Your task to perform on an android device: turn off improve location accuracy Image 0: 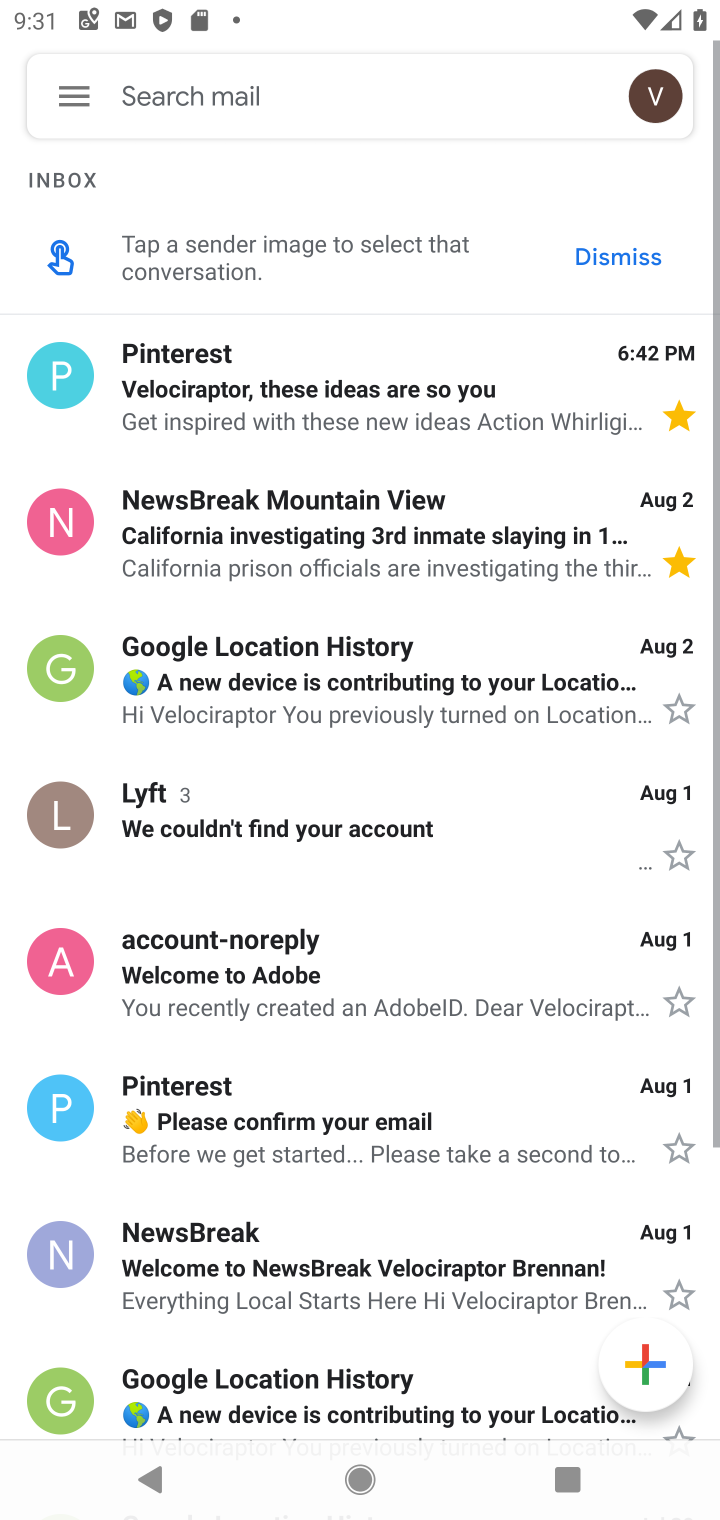
Step 0: press back button
Your task to perform on an android device: turn off improve location accuracy Image 1: 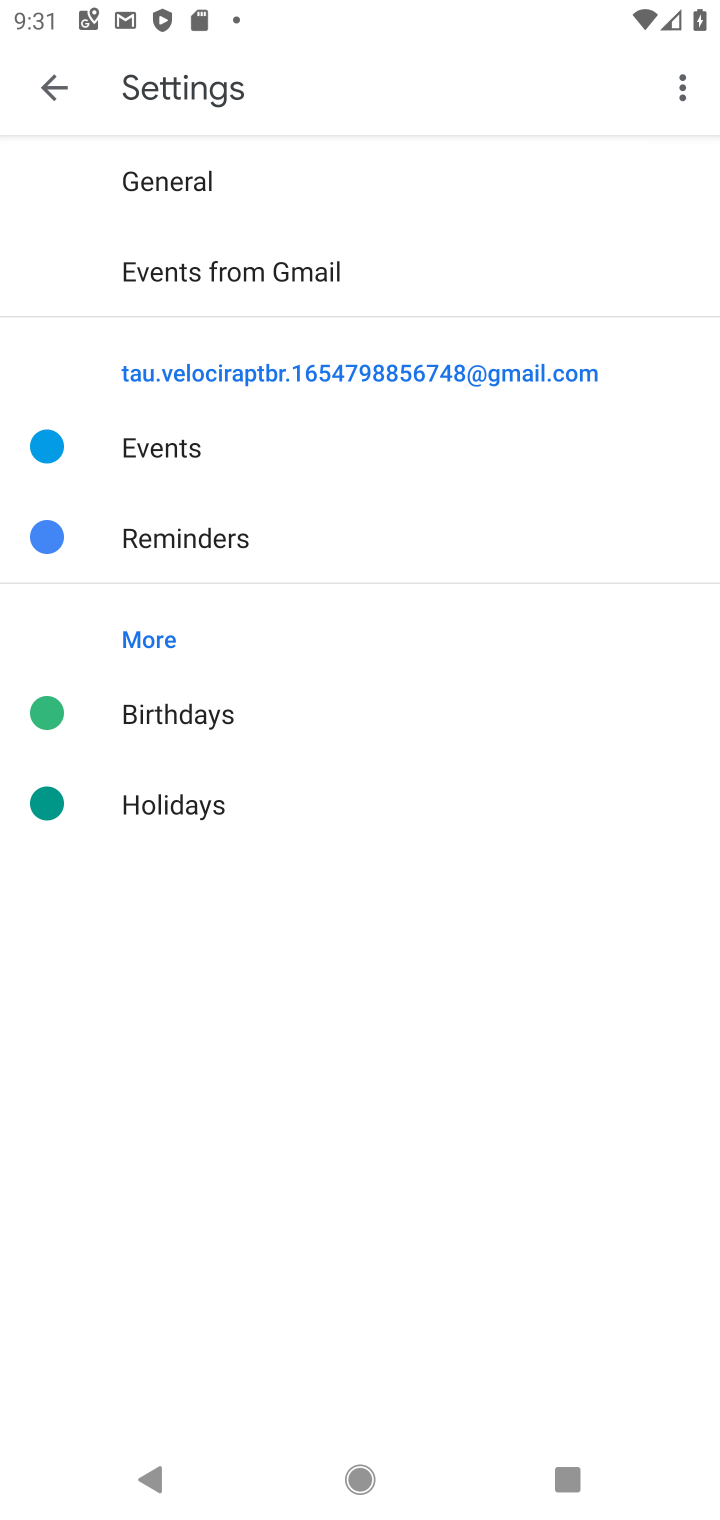
Step 1: press home button
Your task to perform on an android device: turn off improve location accuracy Image 2: 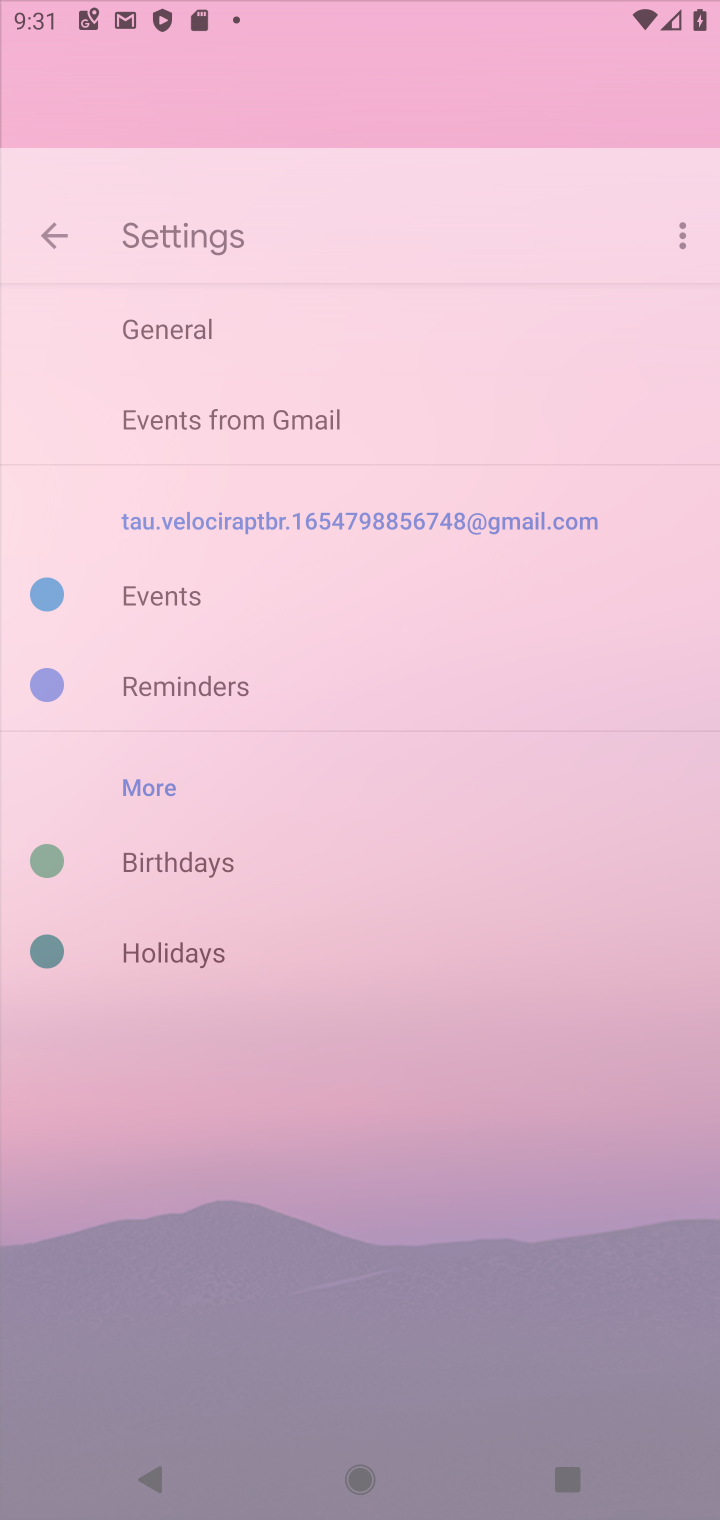
Step 2: click (48, 78)
Your task to perform on an android device: turn off improve location accuracy Image 3: 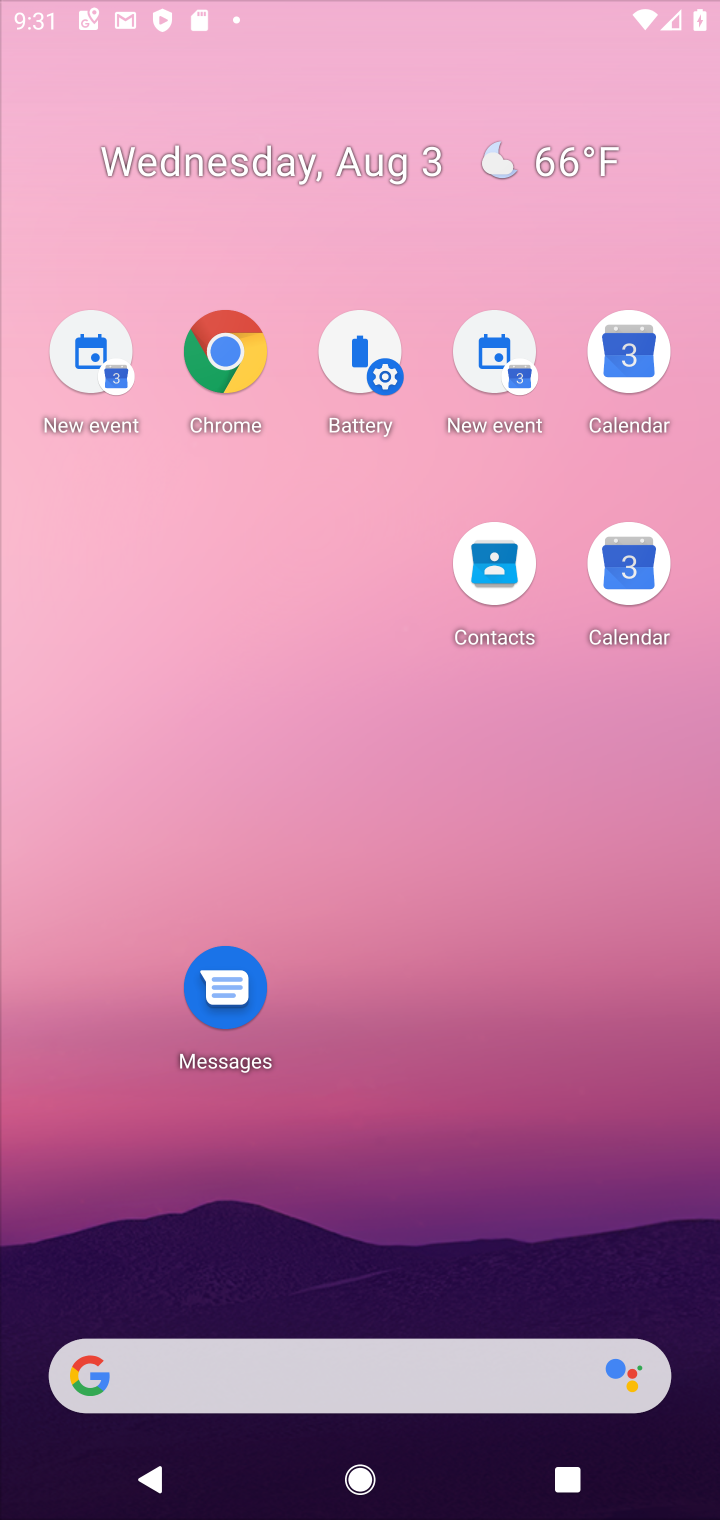
Step 3: drag from (557, 1121) to (272, 189)
Your task to perform on an android device: turn off improve location accuracy Image 4: 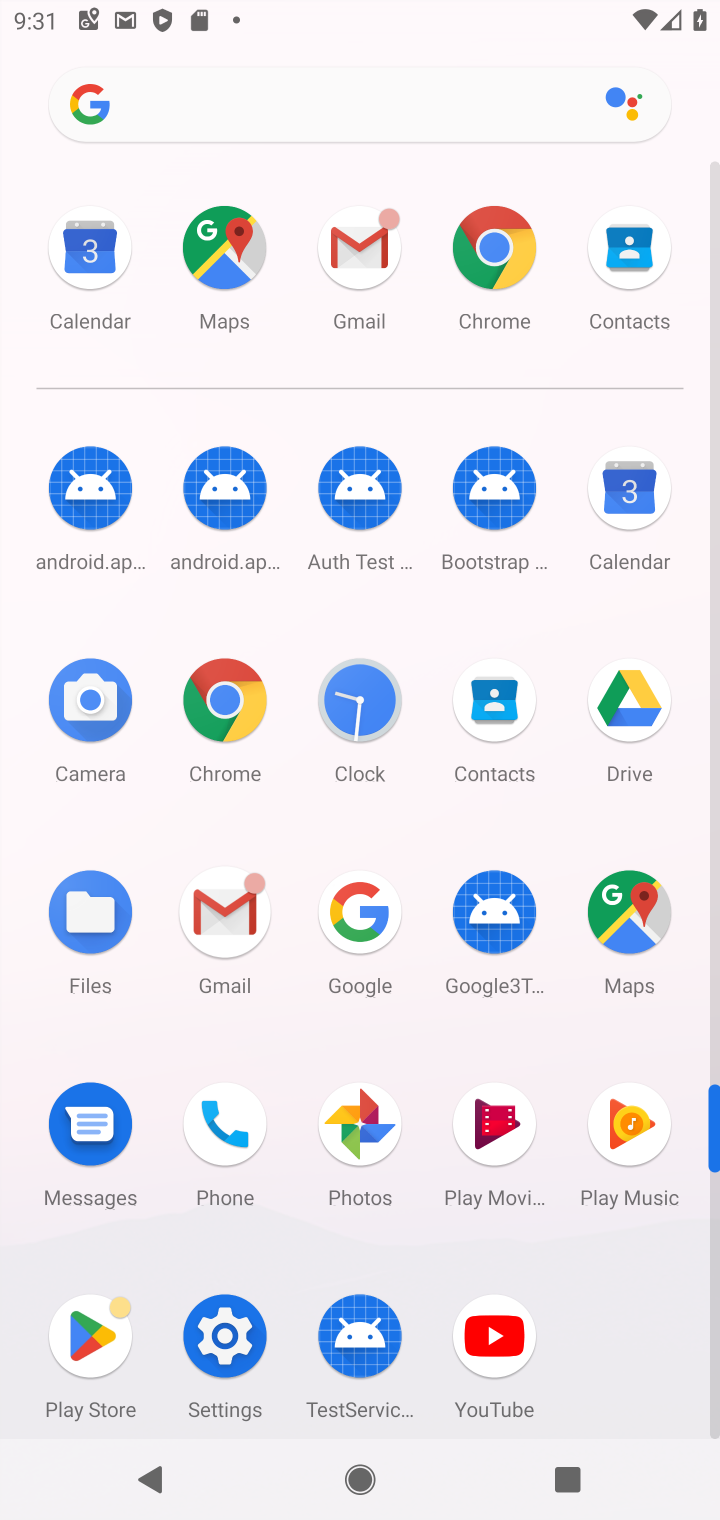
Step 4: click (220, 1343)
Your task to perform on an android device: turn off improve location accuracy Image 5: 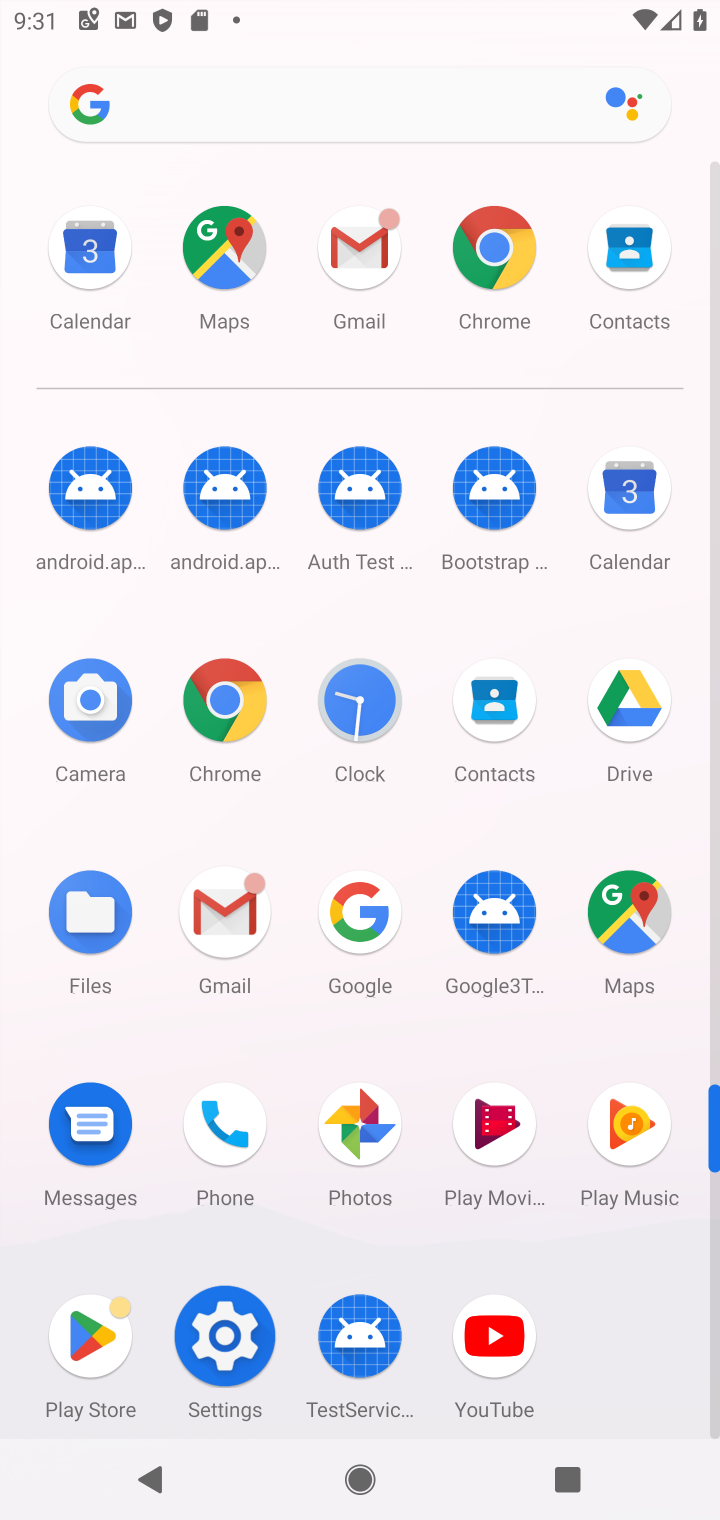
Step 5: click (220, 1343)
Your task to perform on an android device: turn off improve location accuracy Image 6: 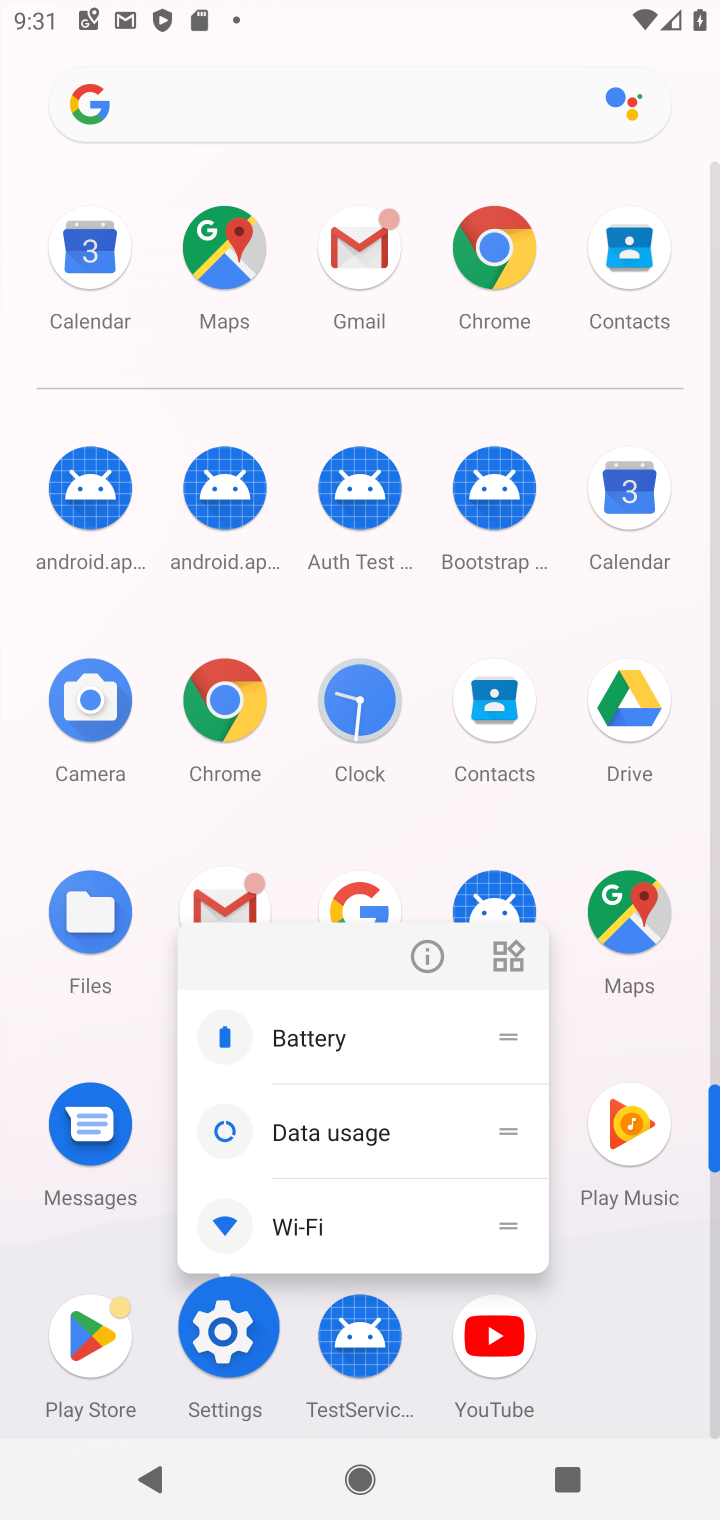
Step 6: click (224, 1334)
Your task to perform on an android device: turn off improve location accuracy Image 7: 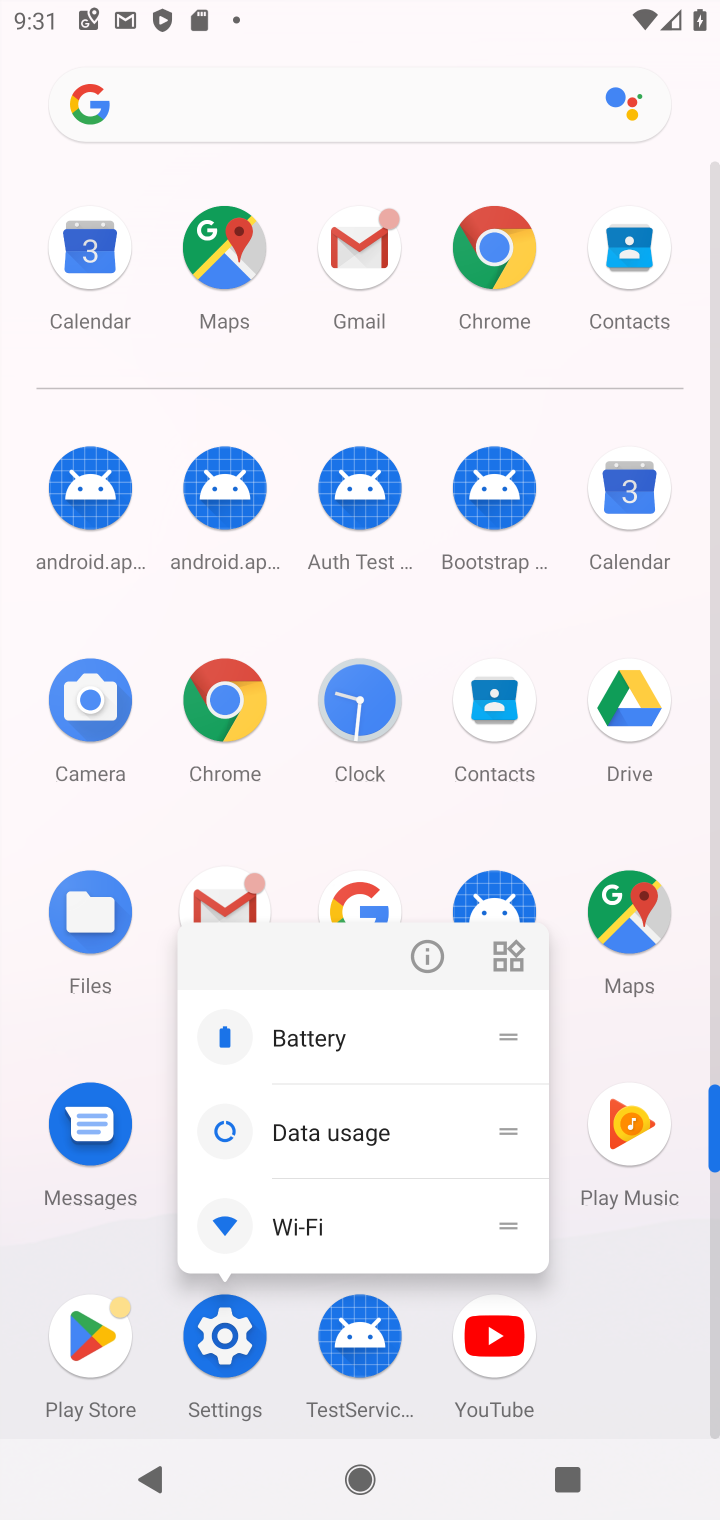
Step 7: click (224, 1334)
Your task to perform on an android device: turn off improve location accuracy Image 8: 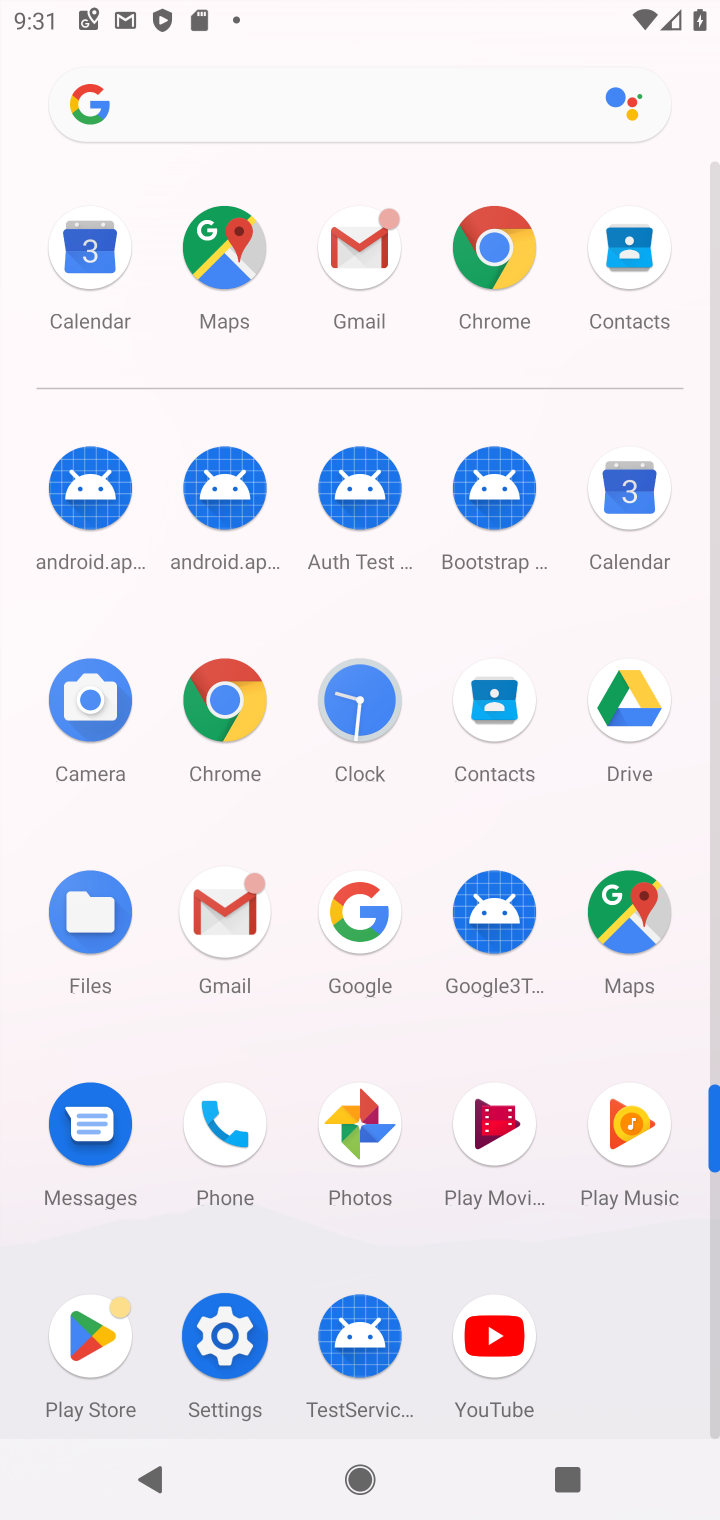
Step 8: click (224, 1334)
Your task to perform on an android device: turn off improve location accuracy Image 9: 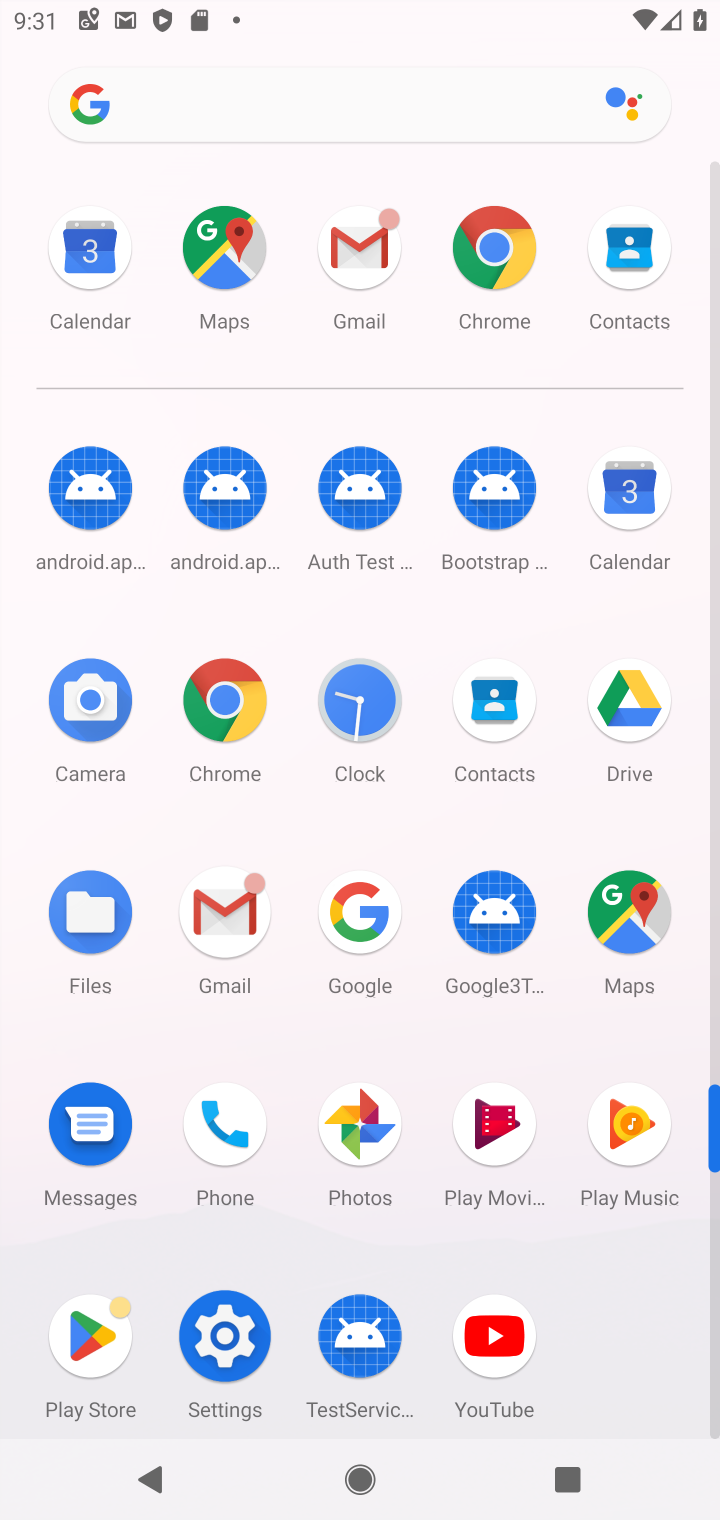
Step 9: click (224, 1334)
Your task to perform on an android device: turn off improve location accuracy Image 10: 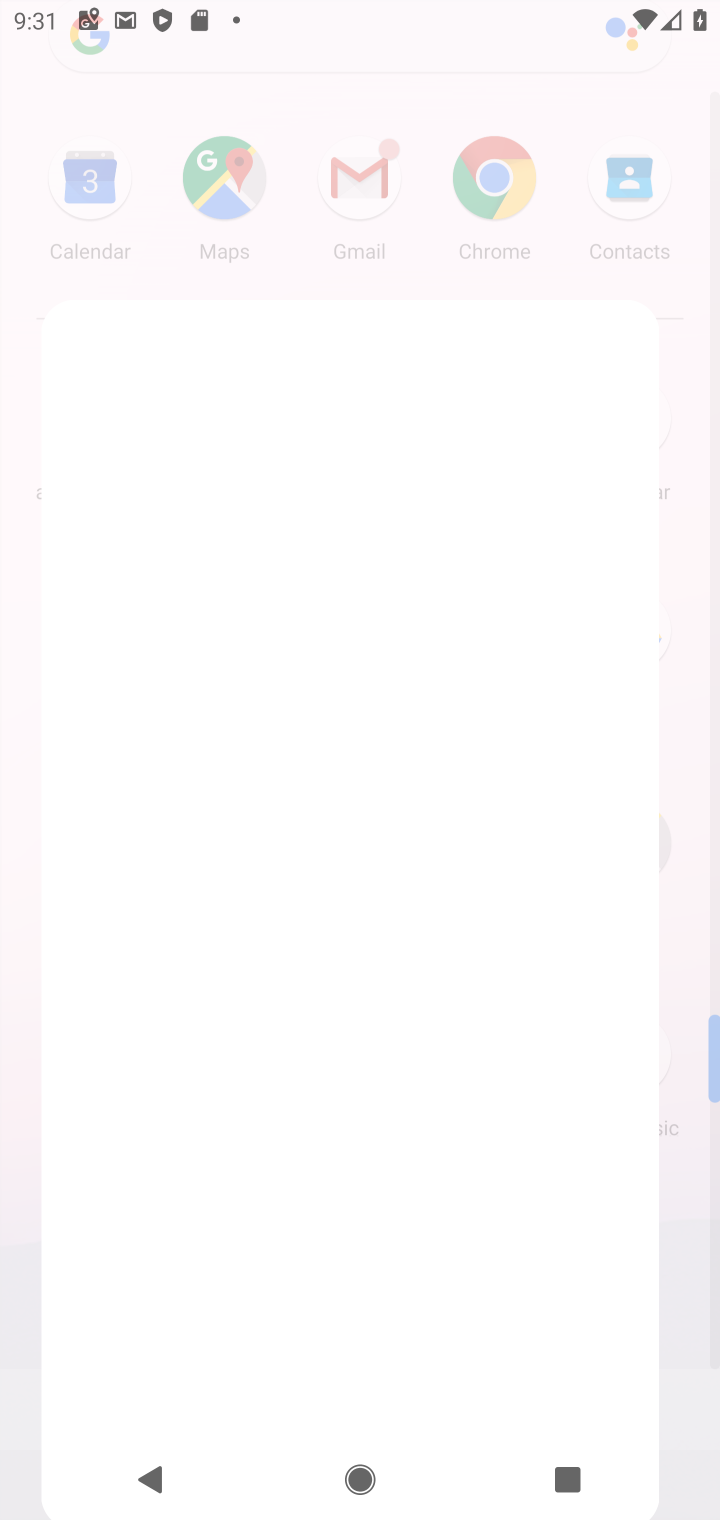
Step 10: click (224, 1334)
Your task to perform on an android device: turn off improve location accuracy Image 11: 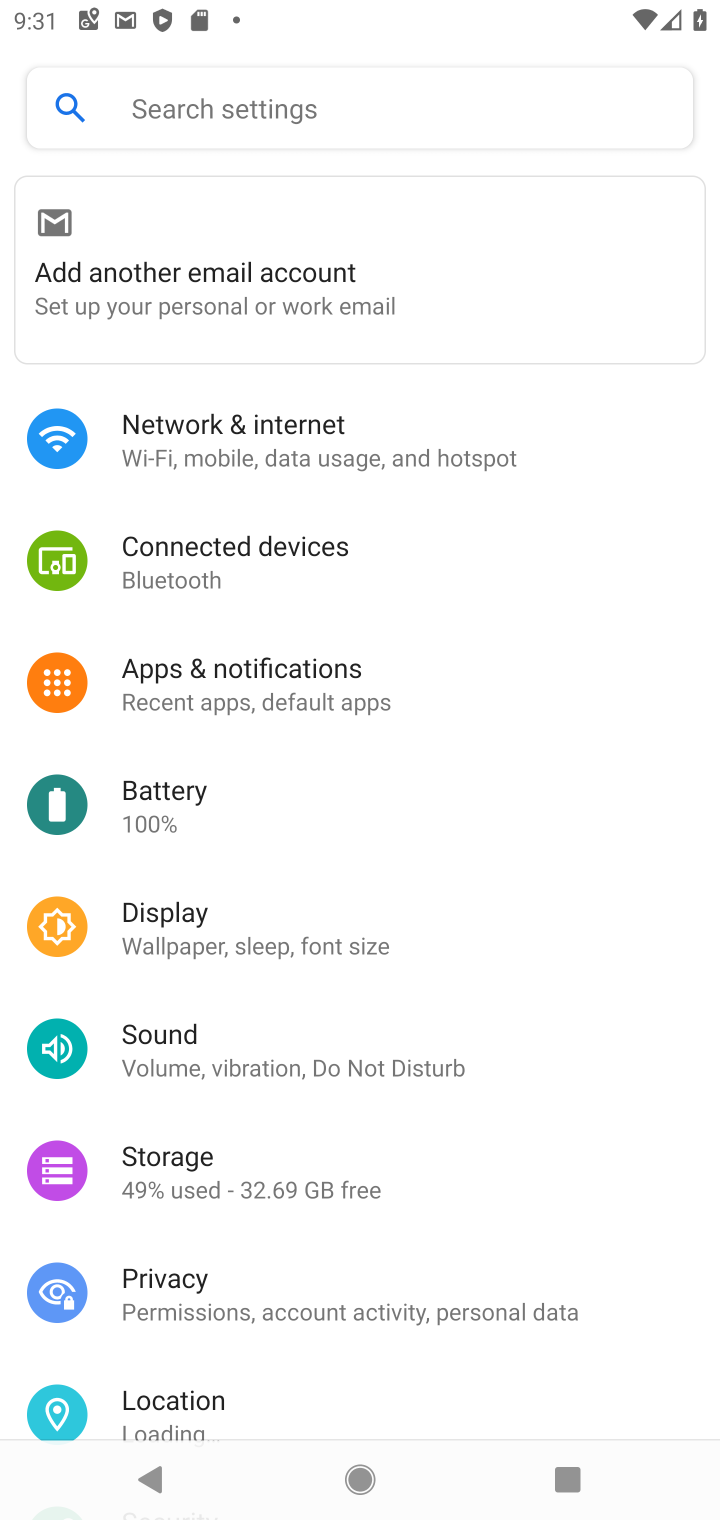
Step 11: drag from (221, 1204) to (142, 516)
Your task to perform on an android device: turn off improve location accuracy Image 12: 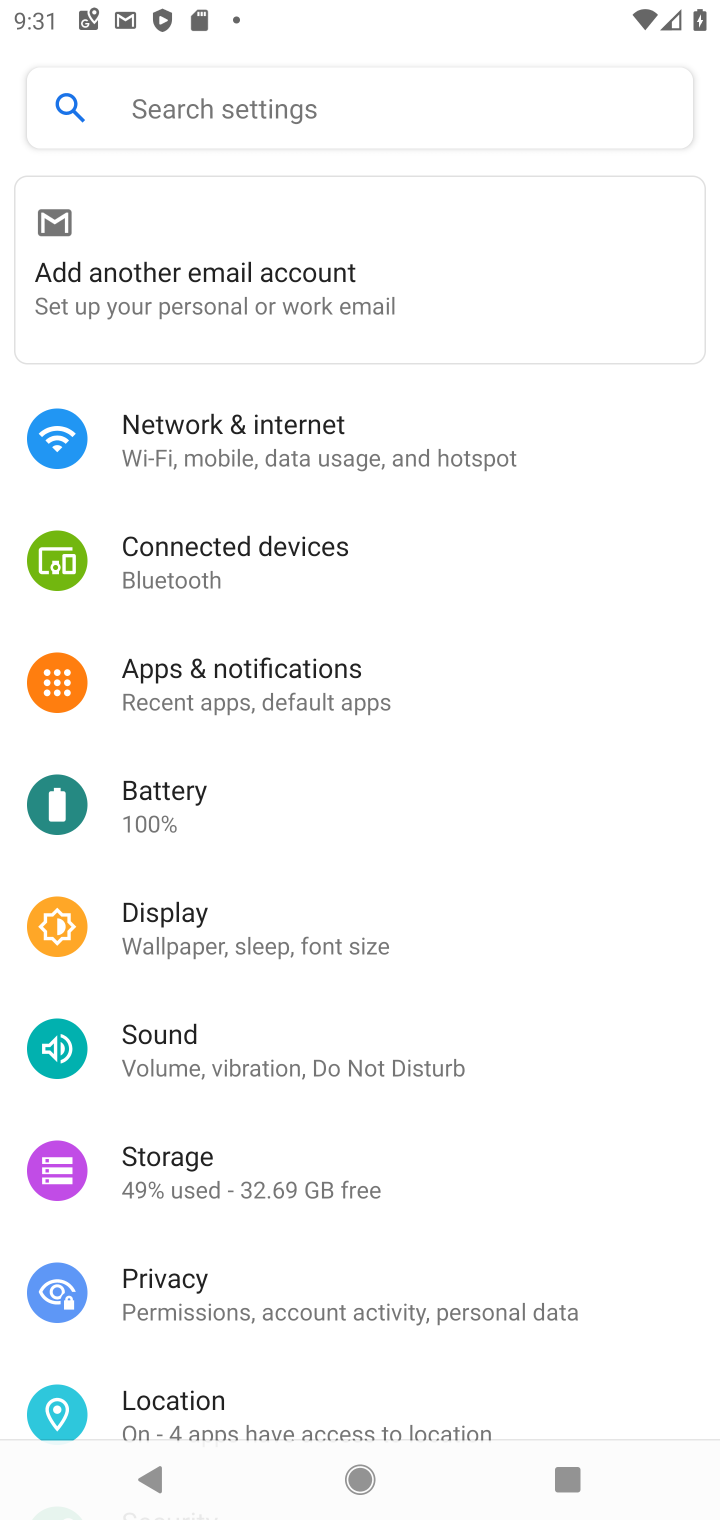
Step 12: drag from (221, 1039) to (184, 488)
Your task to perform on an android device: turn off improve location accuracy Image 13: 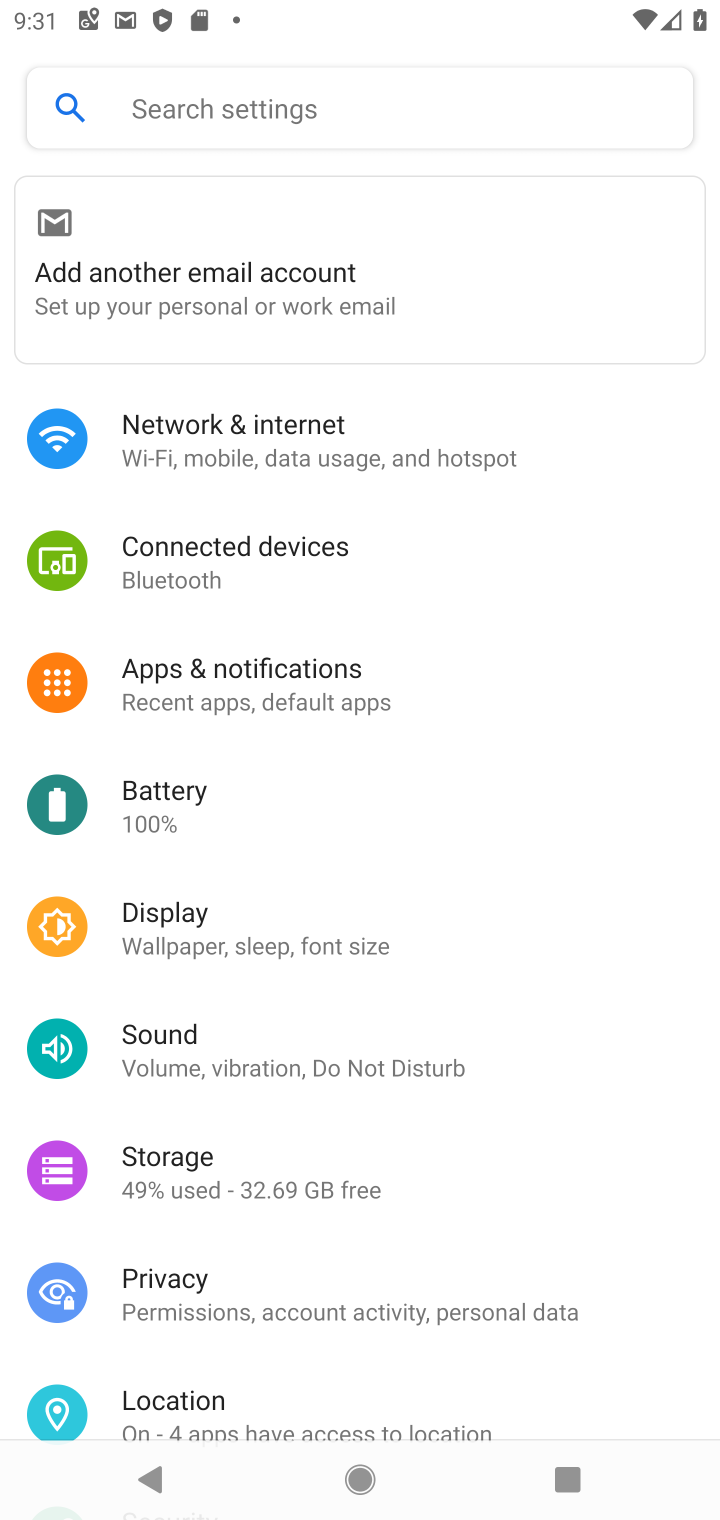
Step 13: drag from (157, 970) to (157, 465)
Your task to perform on an android device: turn off improve location accuracy Image 14: 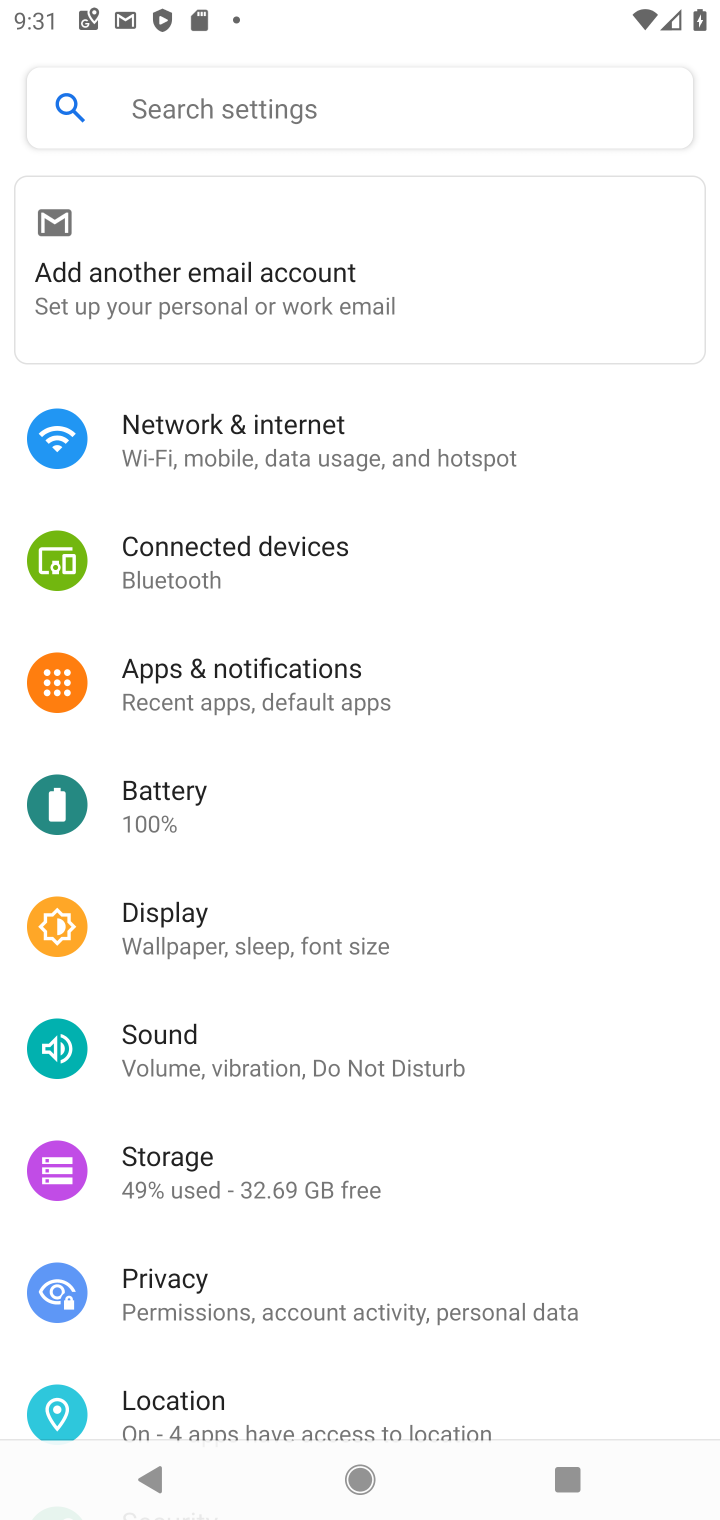
Step 14: drag from (220, 1123) to (325, 605)
Your task to perform on an android device: turn off improve location accuracy Image 15: 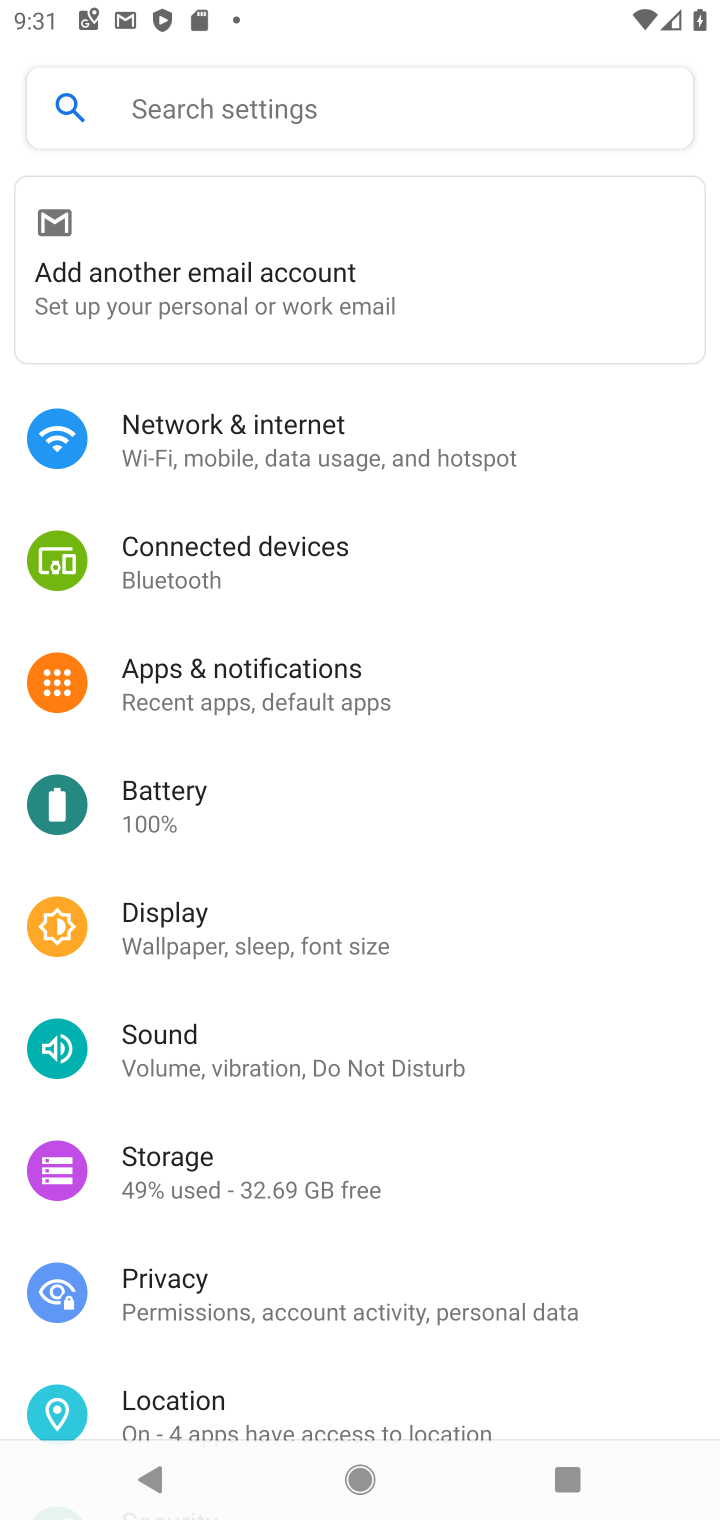
Step 15: drag from (362, 1072) to (357, 478)
Your task to perform on an android device: turn off improve location accuracy Image 16: 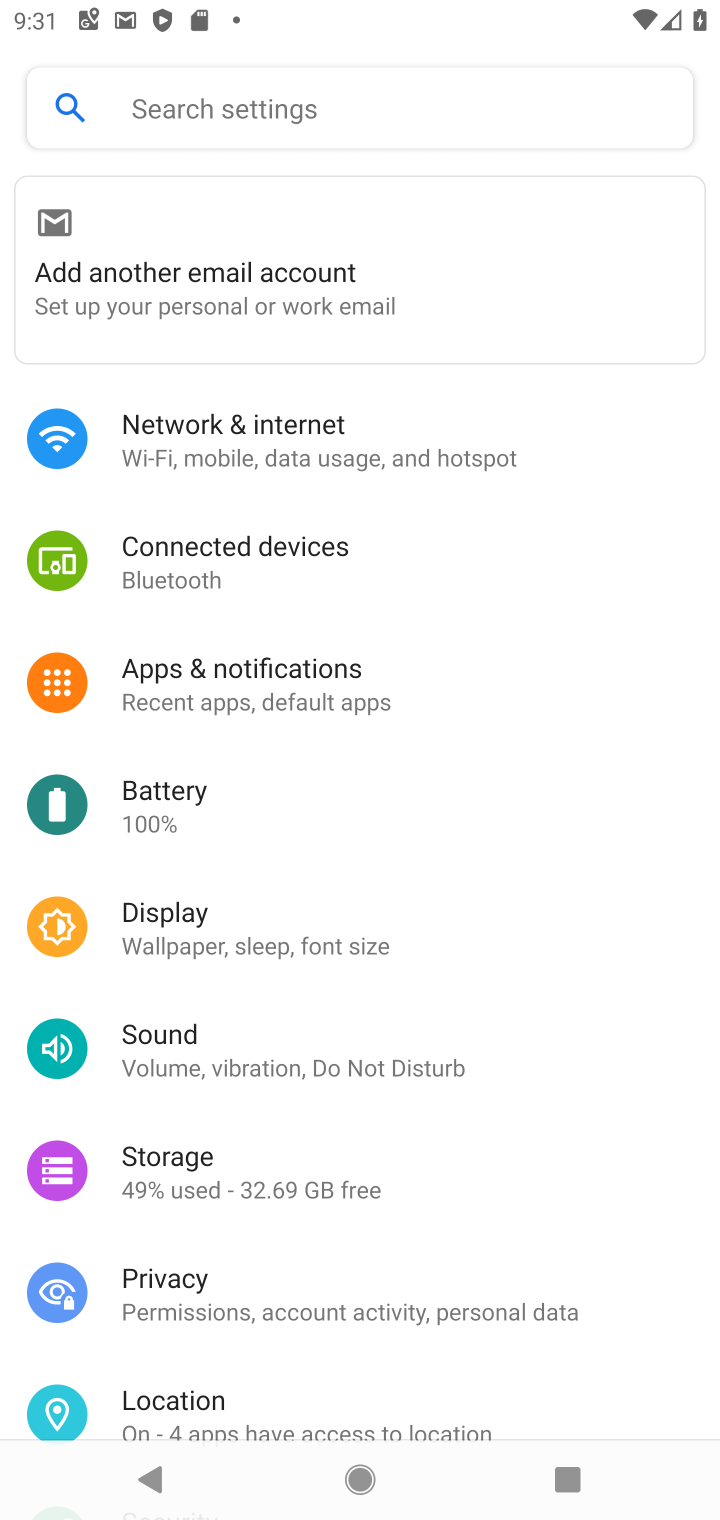
Step 16: drag from (185, 715) to (218, 791)
Your task to perform on an android device: turn off improve location accuracy Image 17: 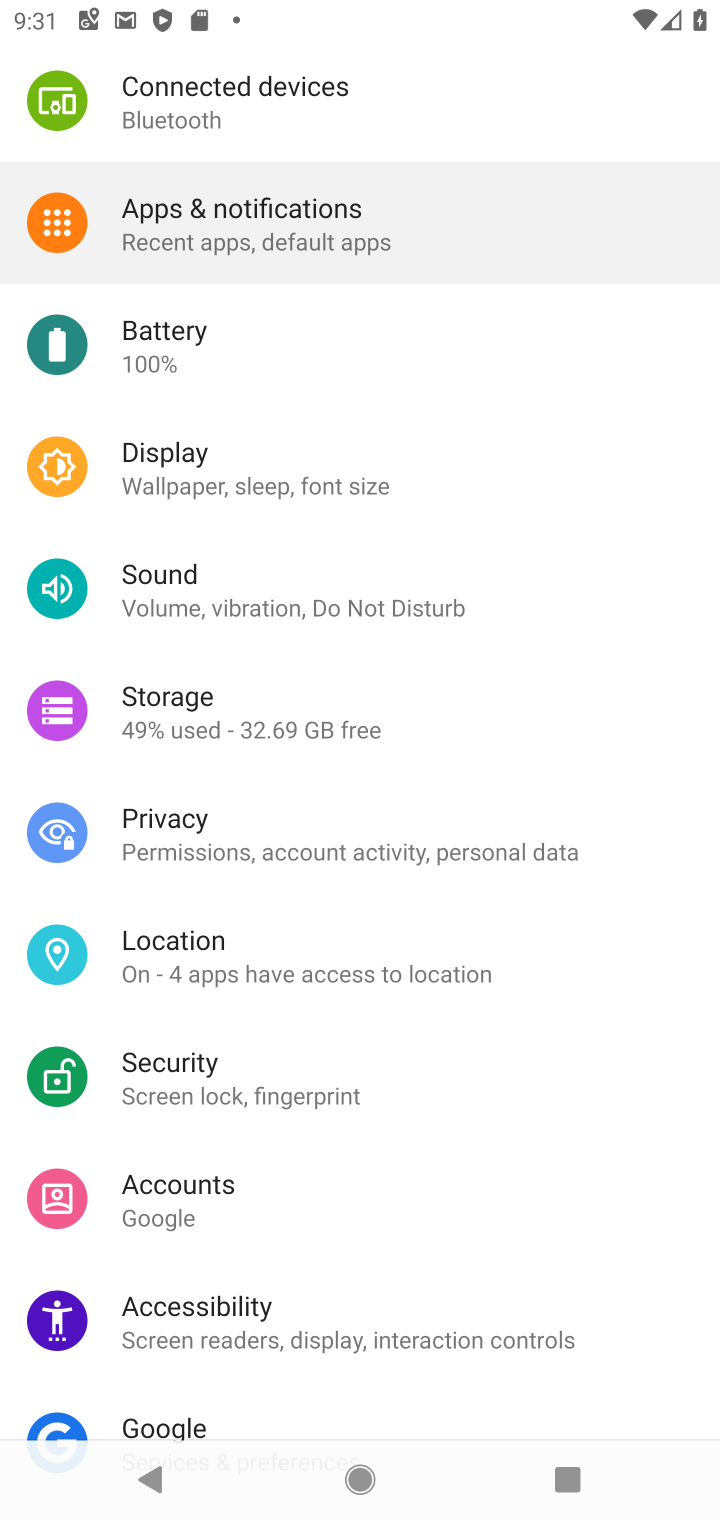
Step 17: drag from (355, 1137) to (427, 570)
Your task to perform on an android device: turn off improve location accuracy Image 18: 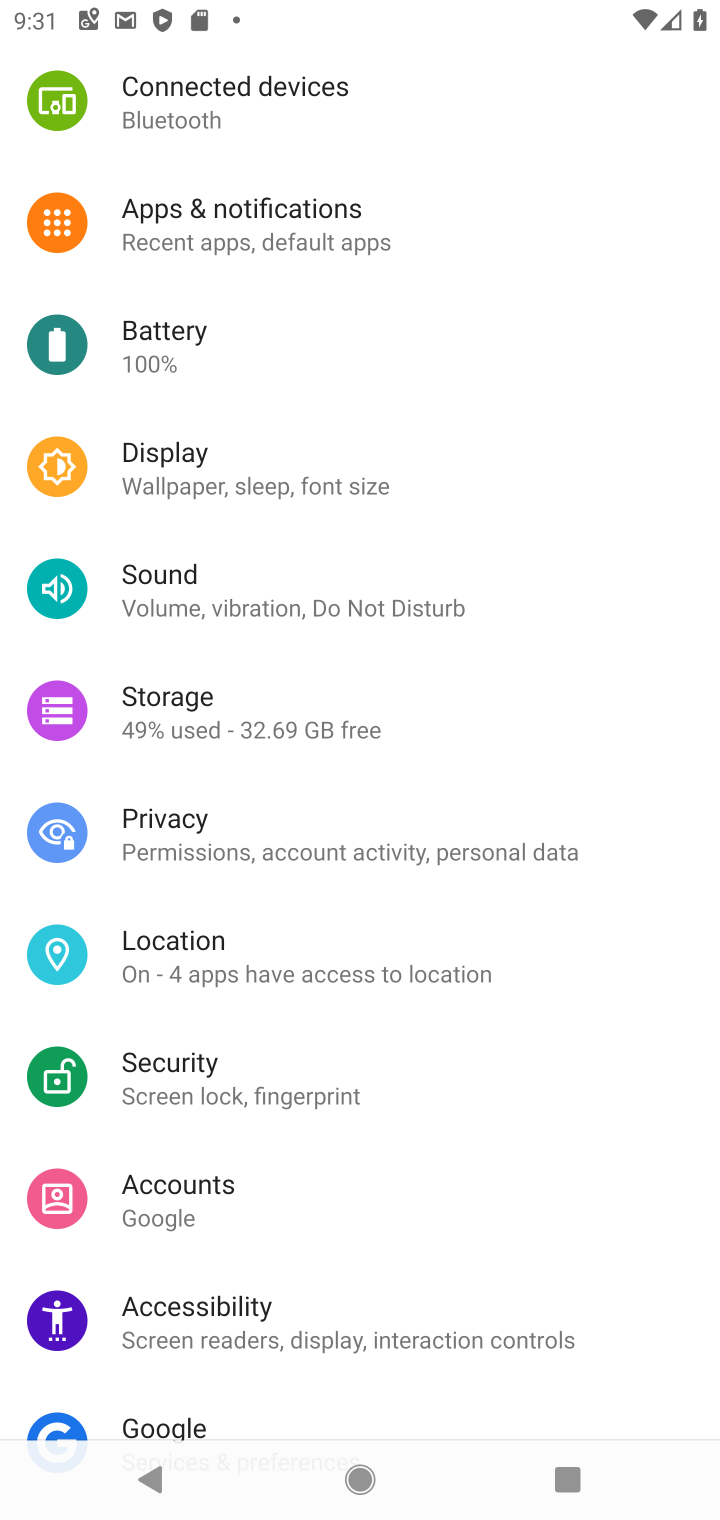
Step 18: click (195, 955)
Your task to perform on an android device: turn off improve location accuracy Image 19: 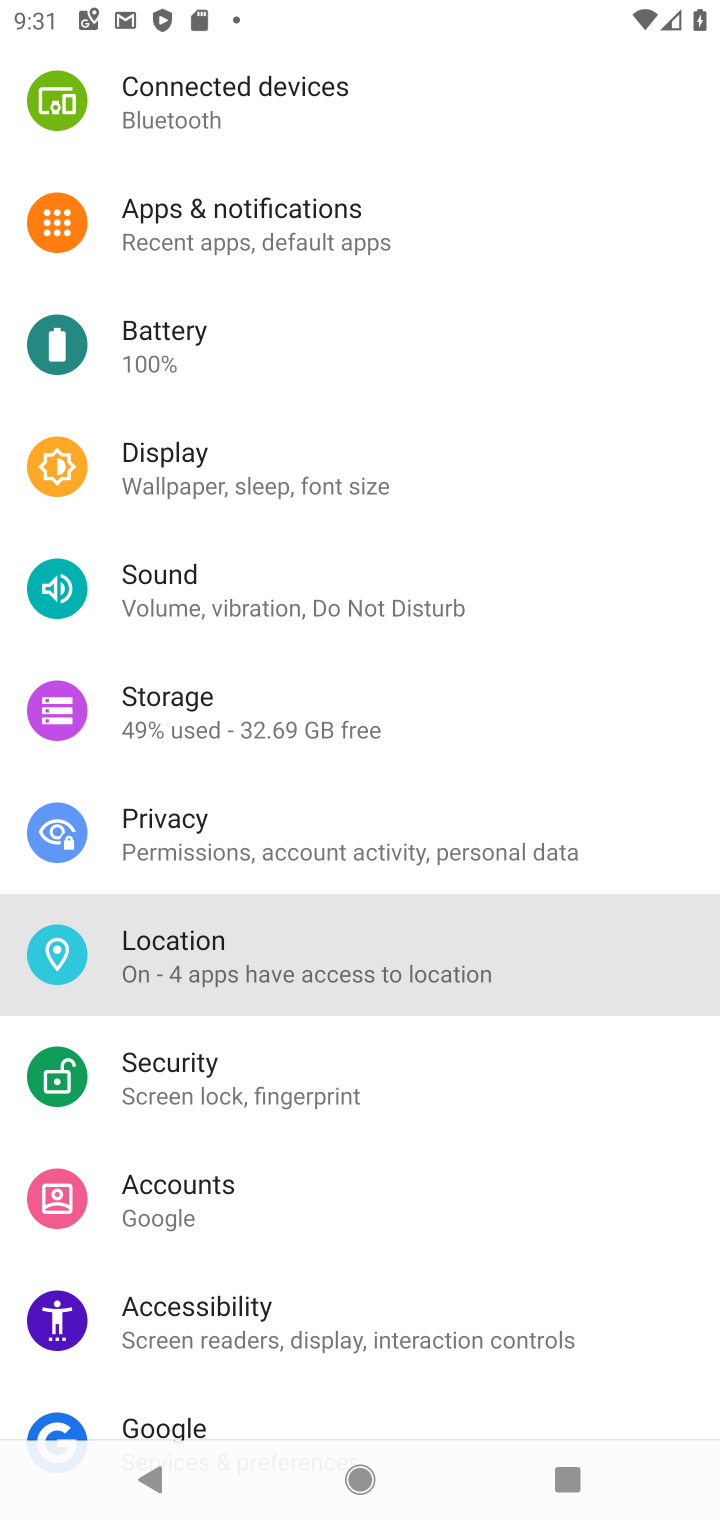
Step 19: click (193, 953)
Your task to perform on an android device: turn off improve location accuracy Image 20: 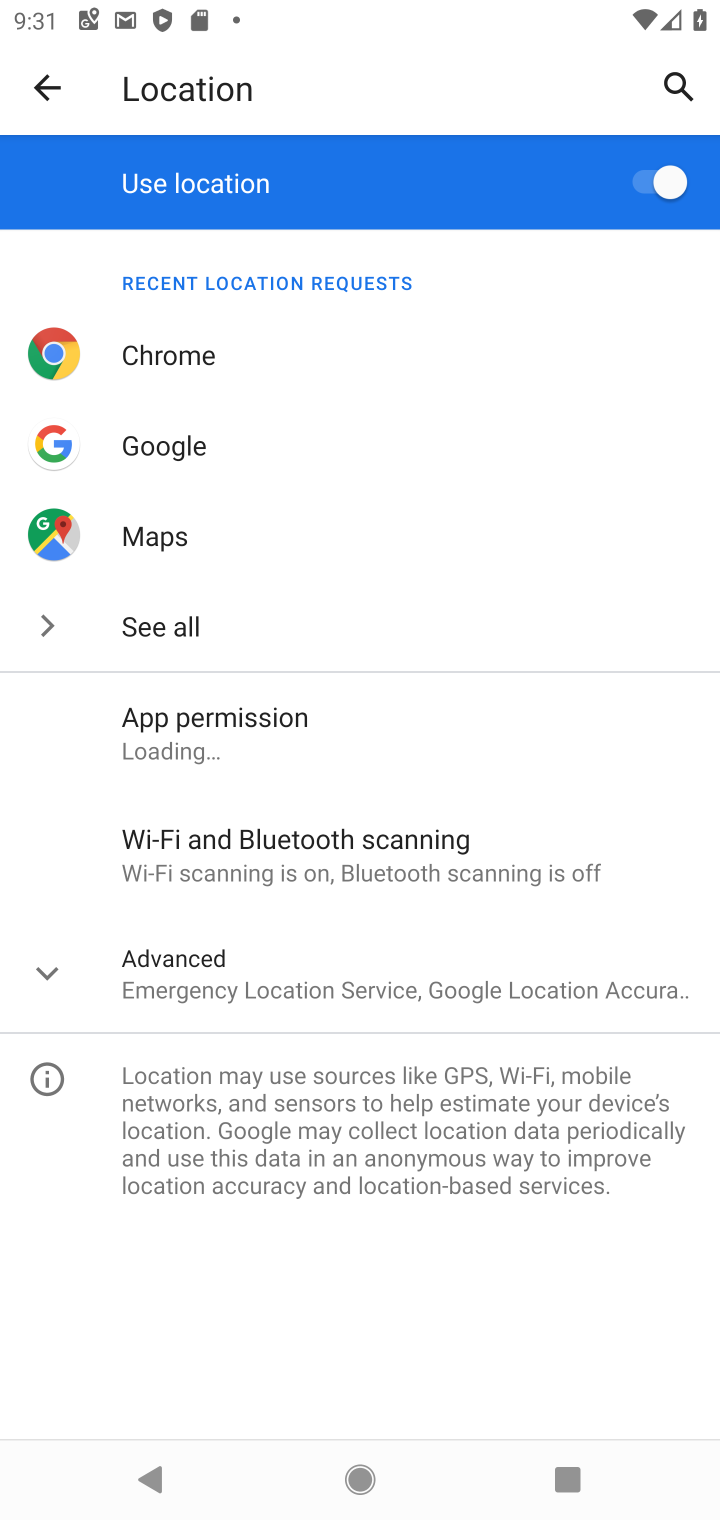
Step 20: click (202, 967)
Your task to perform on an android device: turn off improve location accuracy Image 21: 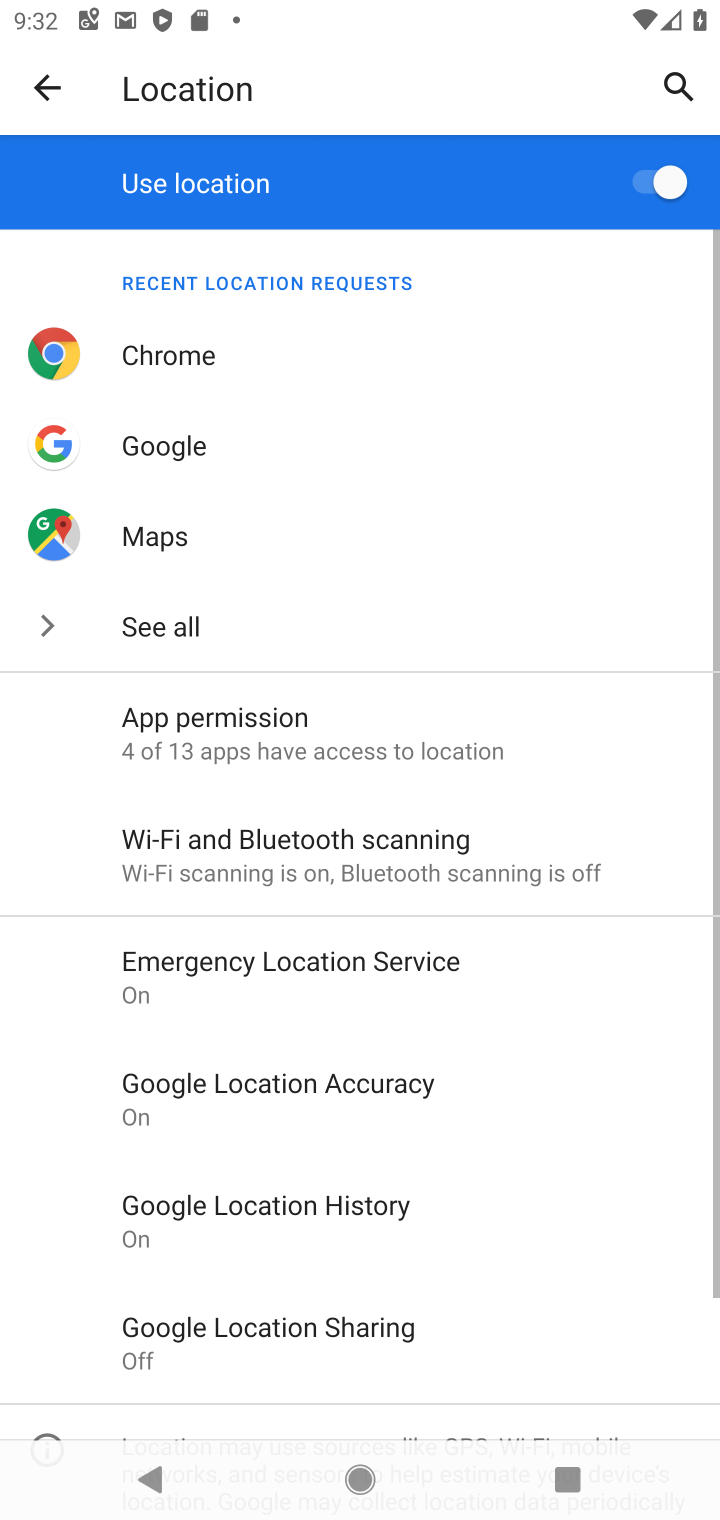
Step 21: click (270, 1089)
Your task to perform on an android device: turn off improve location accuracy Image 22: 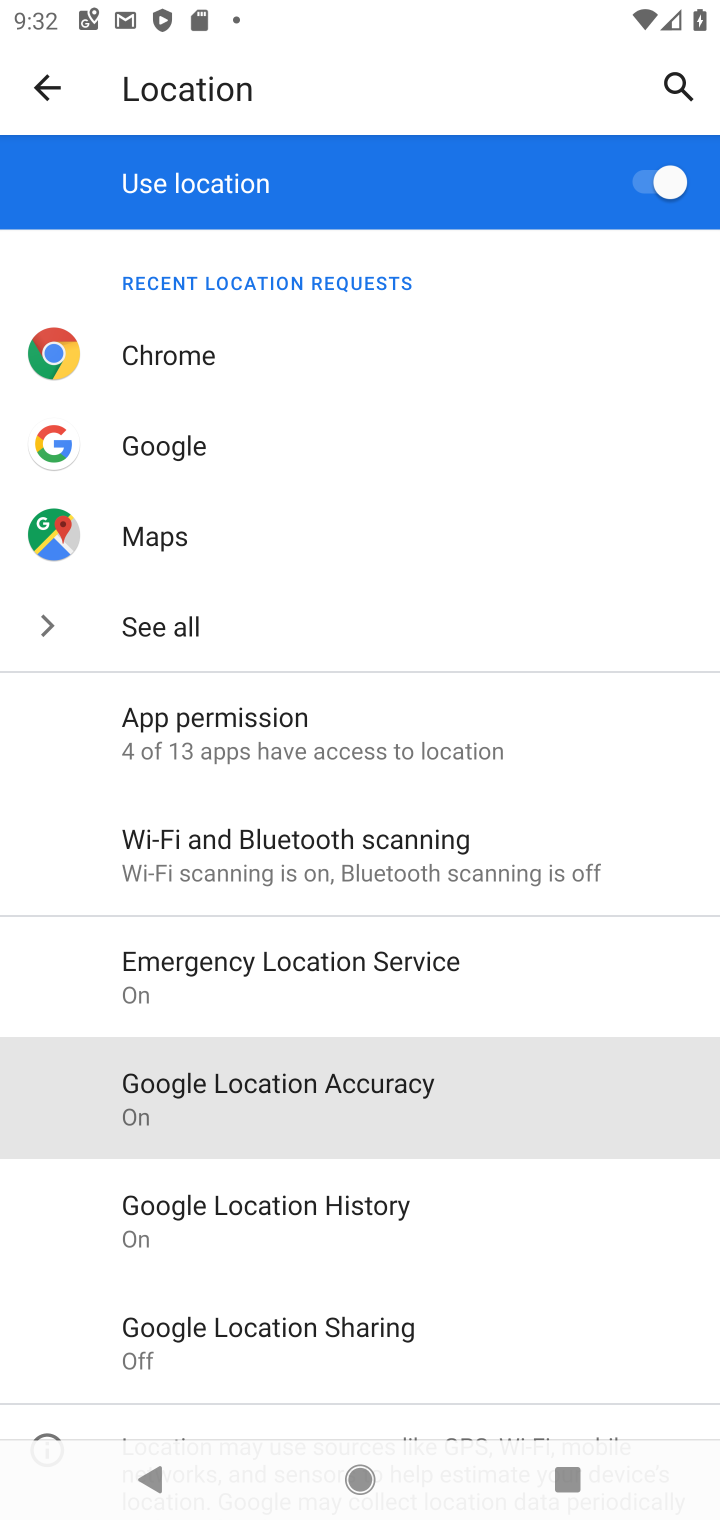
Step 22: click (280, 1083)
Your task to perform on an android device: turn off improve location accuracy Image 23: 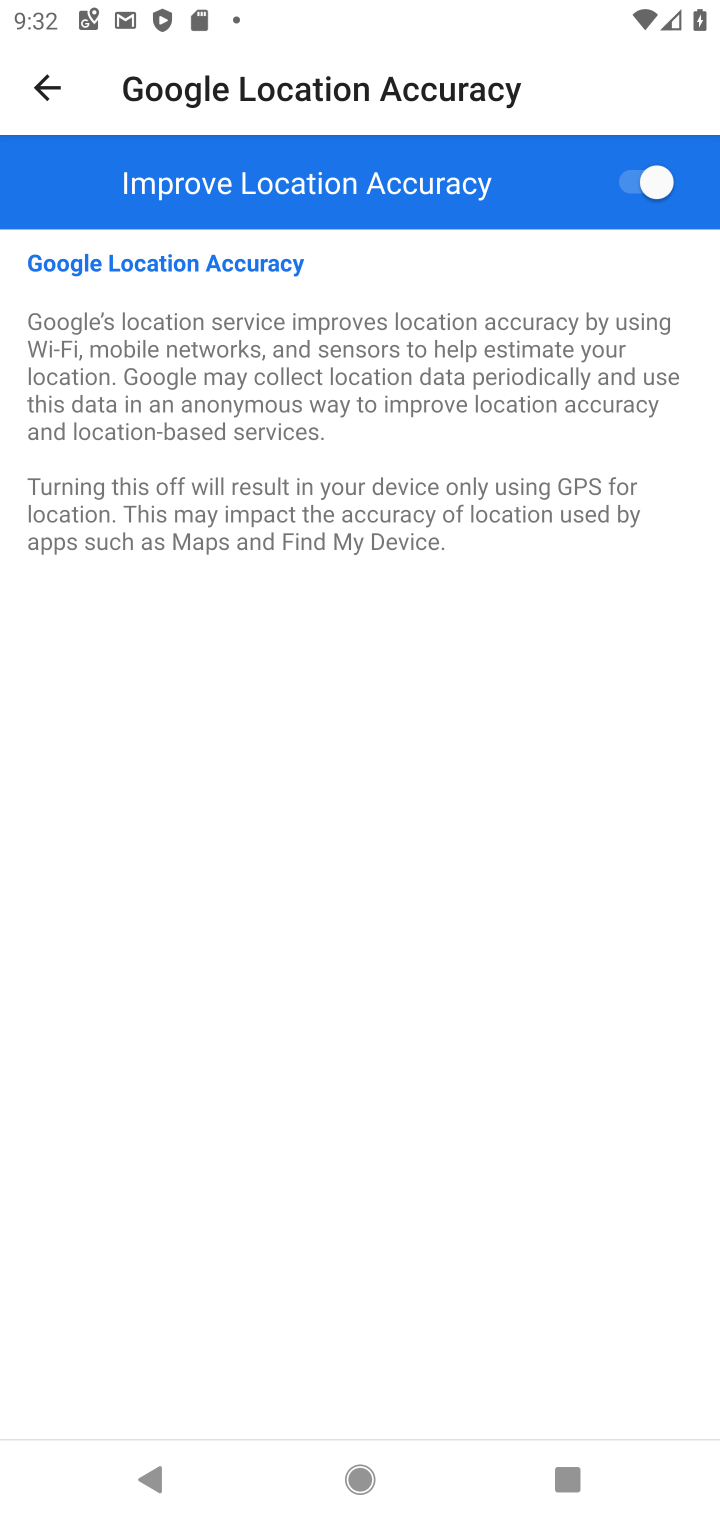
Step 23: task complete